Your task to perform on an android device: allow notifications from all sites in the chrome app Image 0: 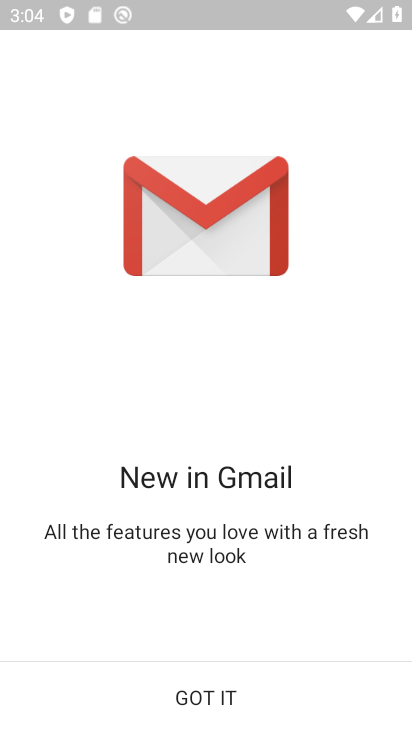
Step 0: press home button
Your task to perform on an android device: allow notifications from all sites in the chrome app Image 1: 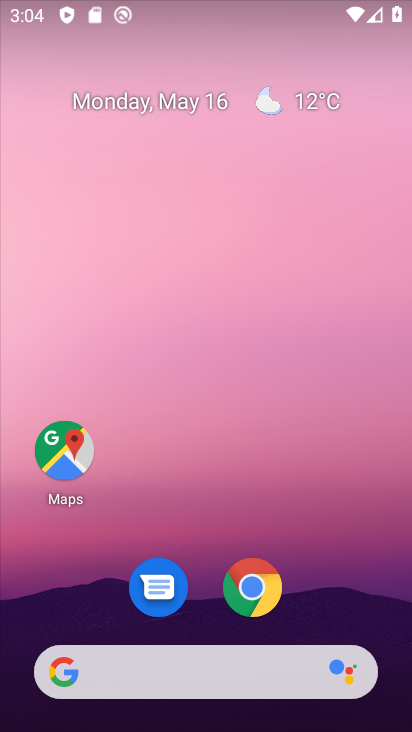
Step 1: click (251, 586)
Your task to perform on an android device: allow notifications from all sites in the chrome app Image 2: 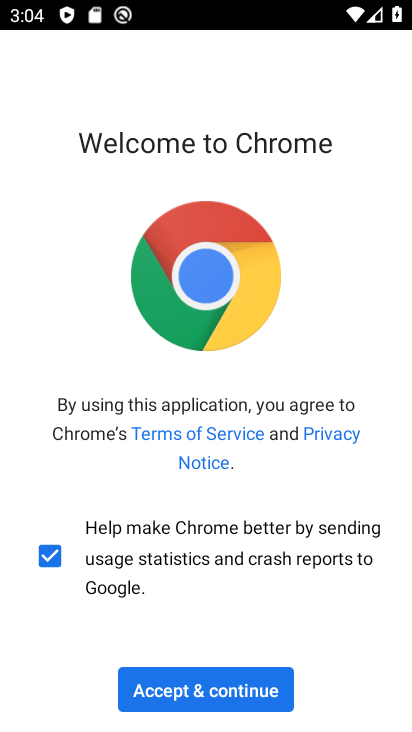
Step 2: click (218, 696)
Your task to perform on an android device: allow notifications from all sites in the chrome app Image 3: 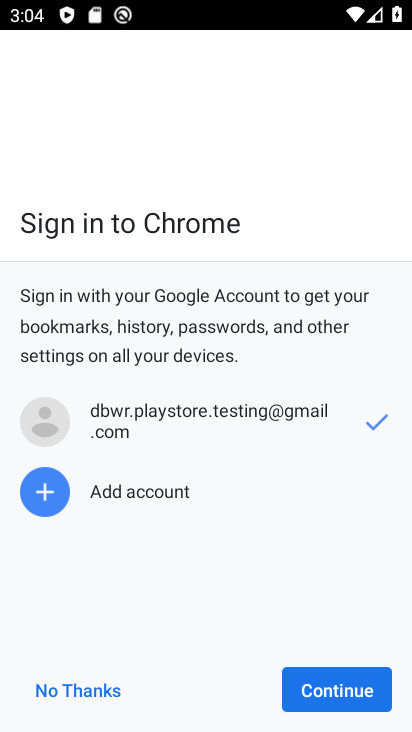
Step 3: click (348, 682)
Your task to perform on an android device: allow notifications from all sites in the chrome app Image 4: 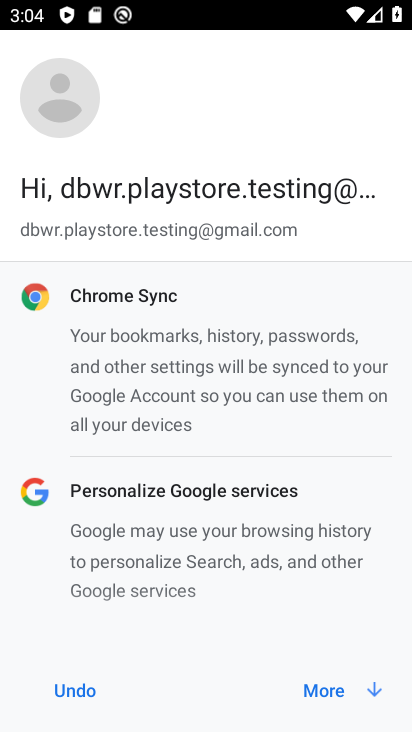
Step 4: click (322, 690)
Your task to perform on an android device: allow notifications from all sites in the chrome app Image 5: 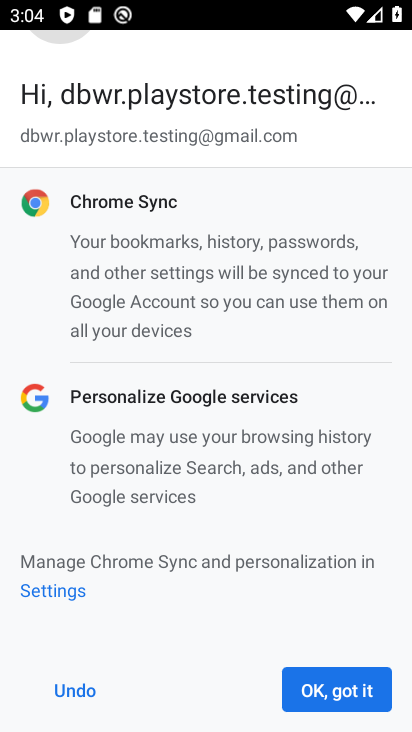
Step 5: click (322, 690)
Your task to perform on an android device: allow notifications from all sites in the chrome app Image 6: 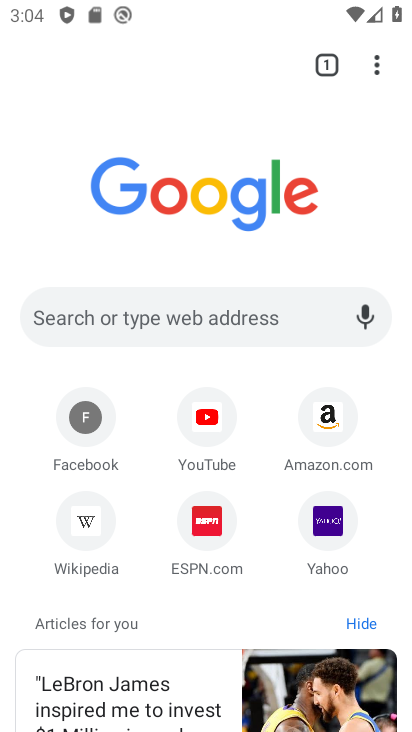
Step 6: click (376, 65)
Your task to perform on an android device: allow notifications from all sites in the chrome app Image 7: 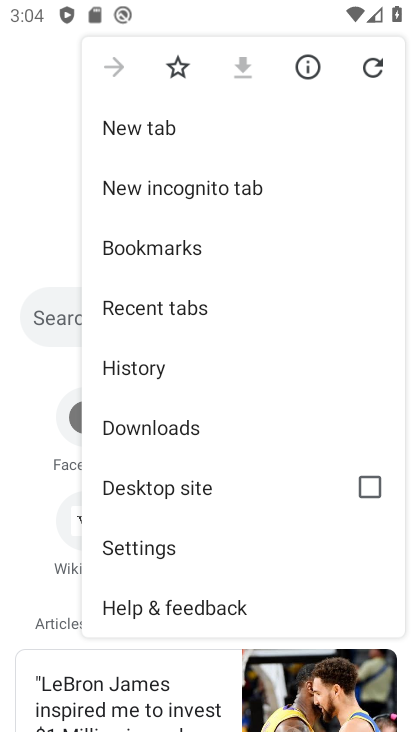
Step 7: click (118, 555)
Your task to perform on an android device: allow notifications from all sites in the chrome app Image 8: 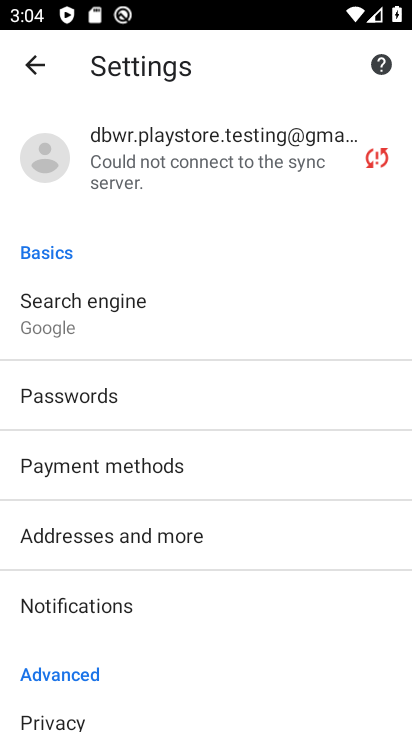
Step 8: drag from (223, 586) to (209, 361)
Your task to perform on an android device: allow notifications from all sites in the chrome app Image 9: 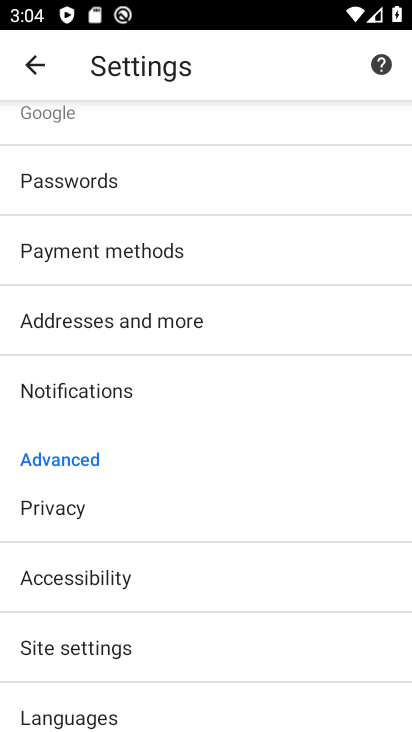
Step 9: click (79, 646)
Your task to perform on an android device: allow notifications from all sites in the chrome app Image 10: 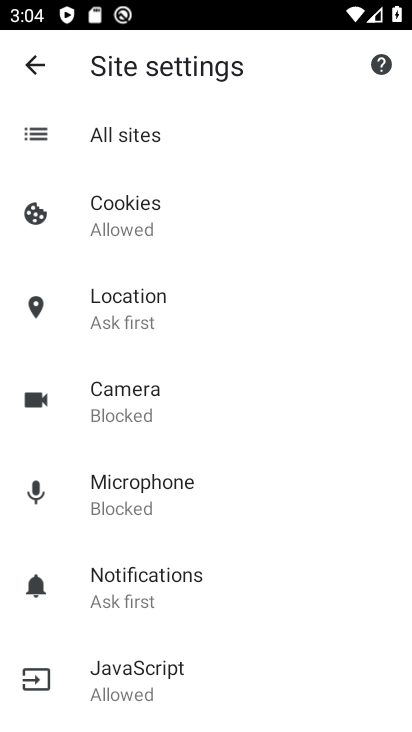
Step 10: click (133, 136)
Your task to perform on an android device: allow notifications from all sites in the chrome app Image 11: 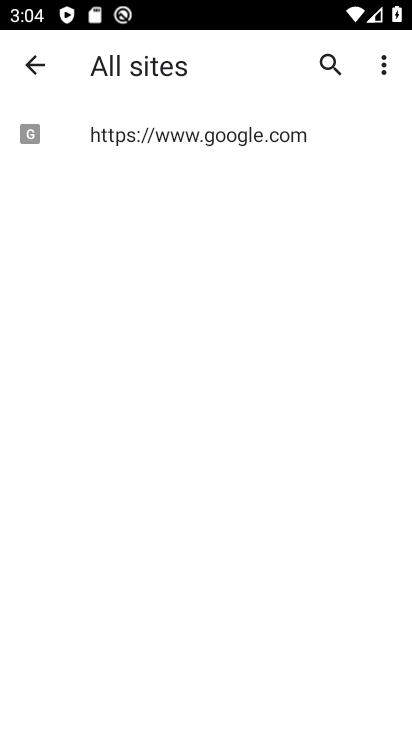
Step 11: click (22, 58)
Your task to perform on an android device: allow notifications from all sites in the chrome app Image 12: 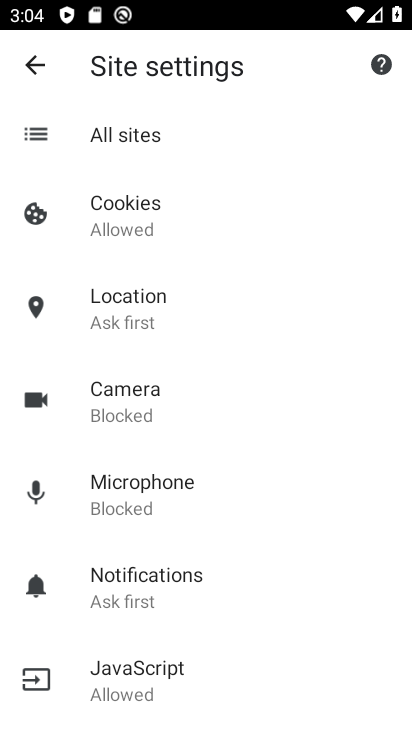
Step 12: click (122, 592)
Your task to perform on an android device: allow notifications from all sites in the chrome app Image 13: 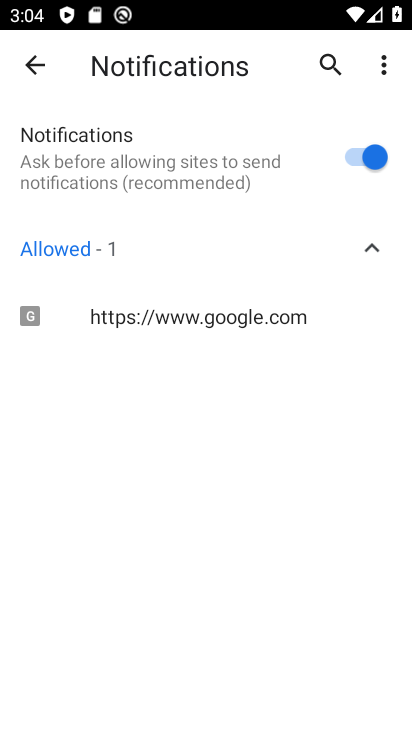
Step 13: task complete